Your task to perform on an android device: Go to location settings Image 0: 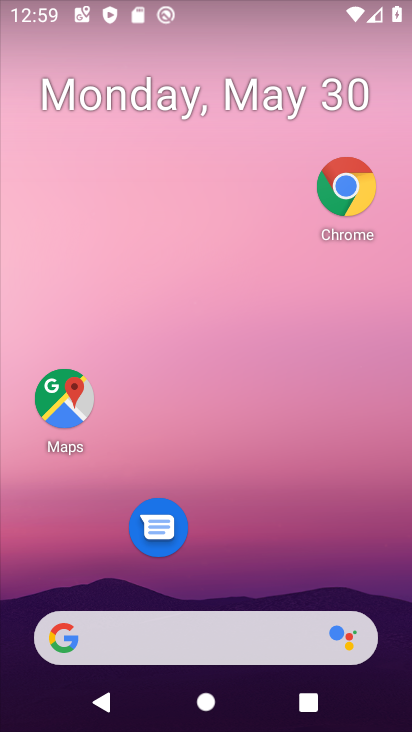
Step 0: click (404, 209)
Your task to perform on an android device: Go to location settings Image 1: 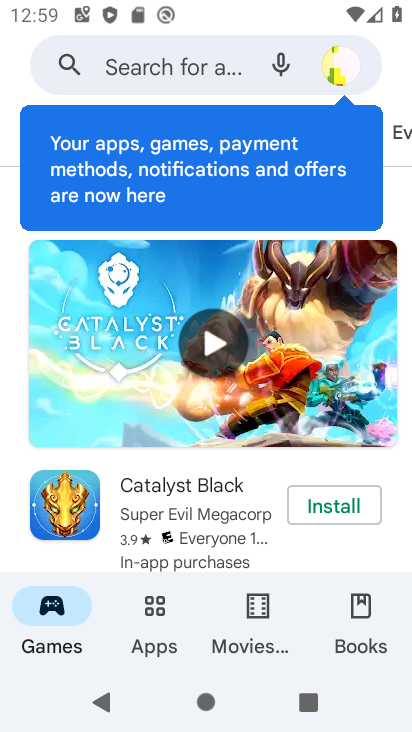
Step 1: drag from (212, 525) to (218, 105)
Your task to perform on an android device: Go to location settings Image 2: 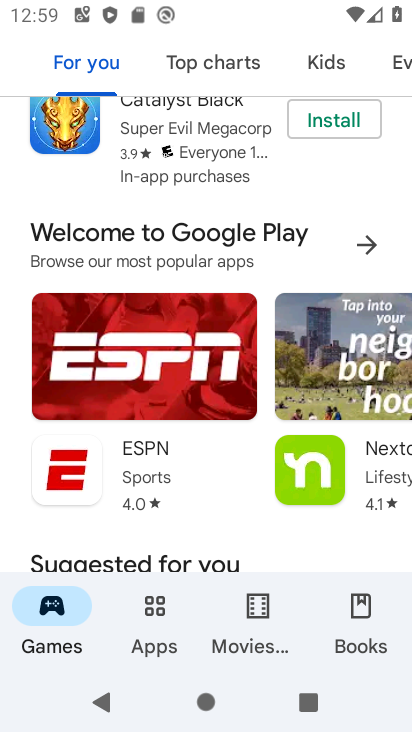
Step 2: drag from (266, 203) to (276, 714)
Your task to perform on an android device: Go to location settings Image 3: 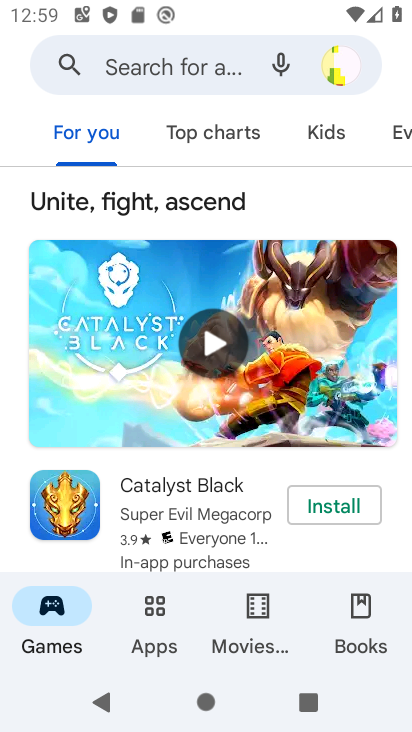
Step 3: press home button
Your task to perform on an android device: Go to location settings Image 4: 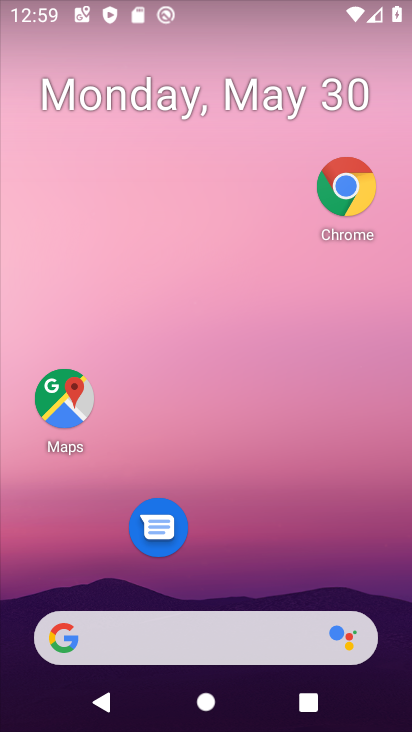
Step 4: drag from (189, 585) to (214, 61)
Your task to perform on an android device: Go to location settings Image 5: 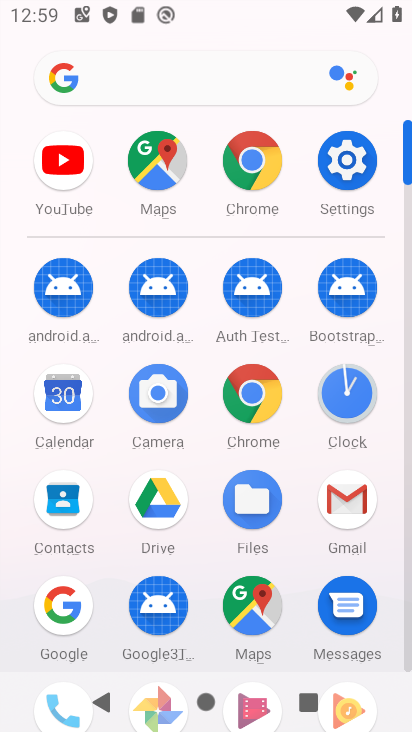
Step 5: click (341, 157)
Your task to perform on an android device: Go to location settings Image 6: 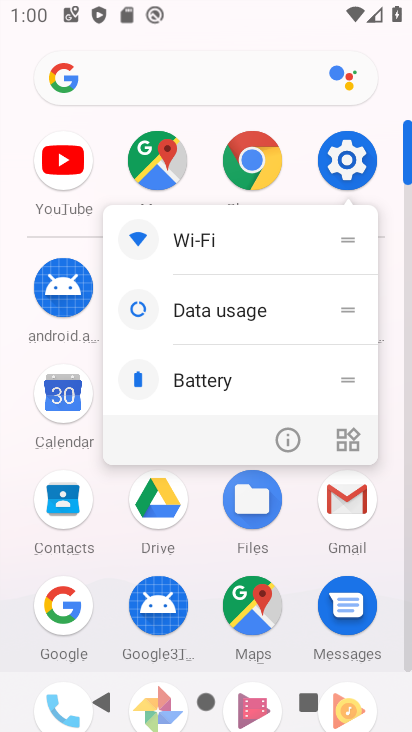
Step 6: click (284, 444)
Your task to perform on an android device: Go to location settings Image 7: 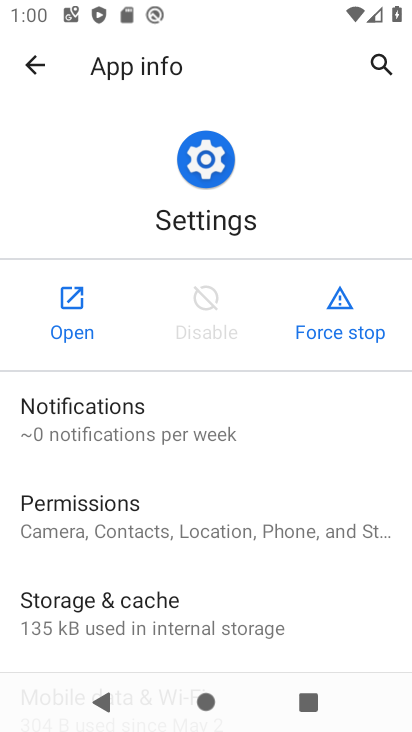
Step 7: click (70, 294)
Your task to perform on an android device: Go to location settings Image 8: 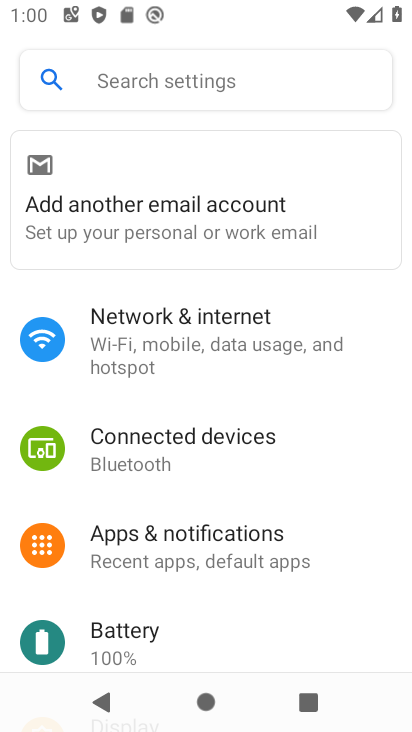
Step 8: drag from (204, 534) to (284, 145)
Your task to perform on an android device: Go to location settings Image 9: 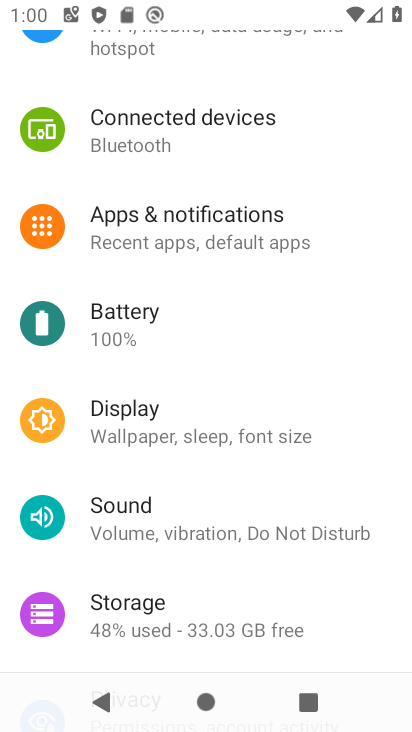
Step 9: drag from (177, 551) to (263, 245)
Your task to perform on an android device: Go to location settings Image 10: 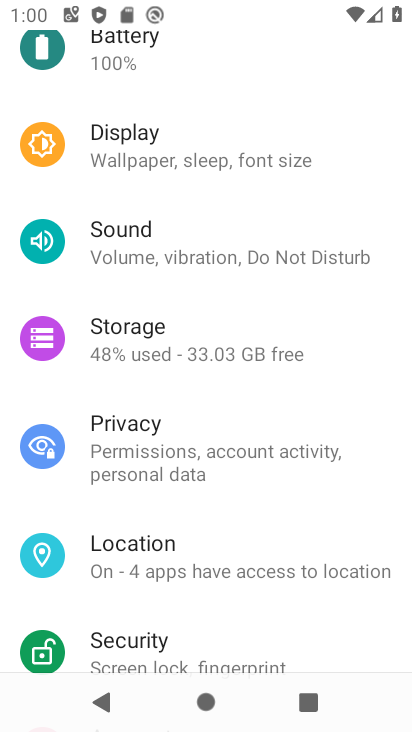
Step 10: click (164, 565)
Your task to perform on an android device: Go to location settings Image 11: 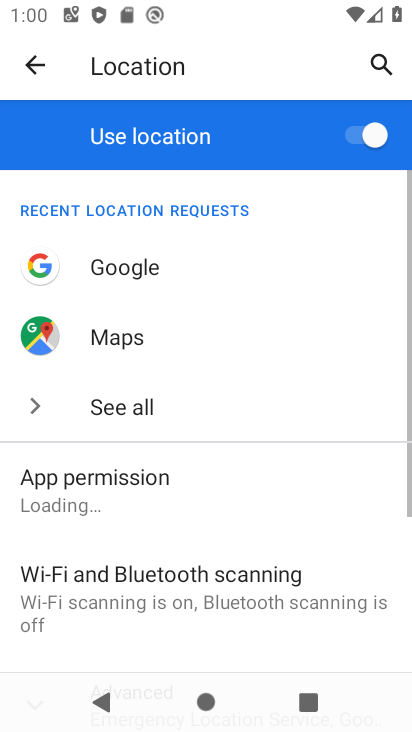
Step 11: task complete